Your task to perform on an android device: Is it going to rain tomorrow? Image 0: 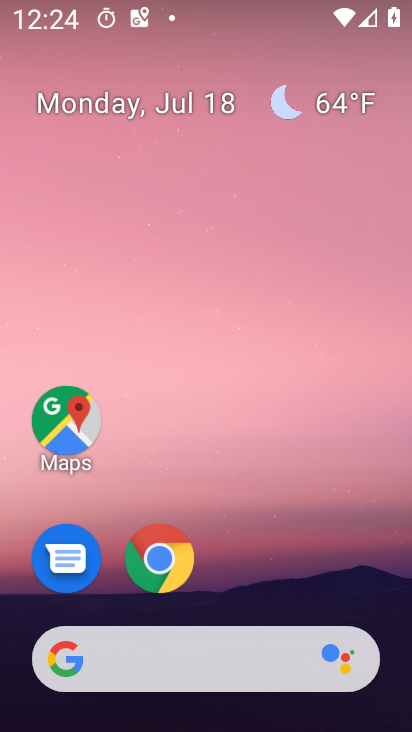
Step 0: click (207, 675)
Your task to perform on an android device: Is it going to rain tomorrow? Image 1: 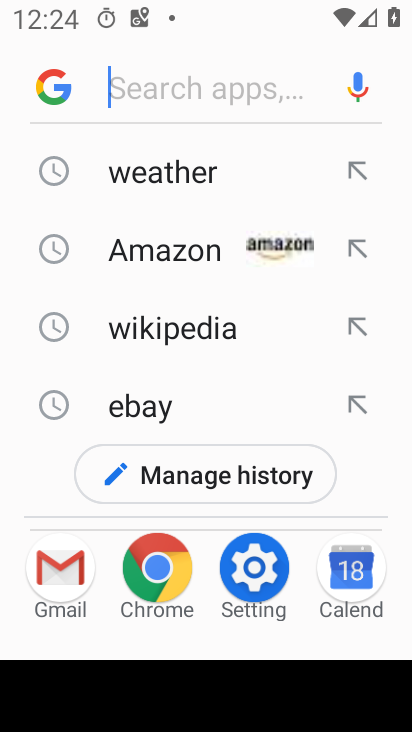
Step 1: click (192, 169)
Your task to perform on an android device: Is it going to rain tomorrow? Image 2: 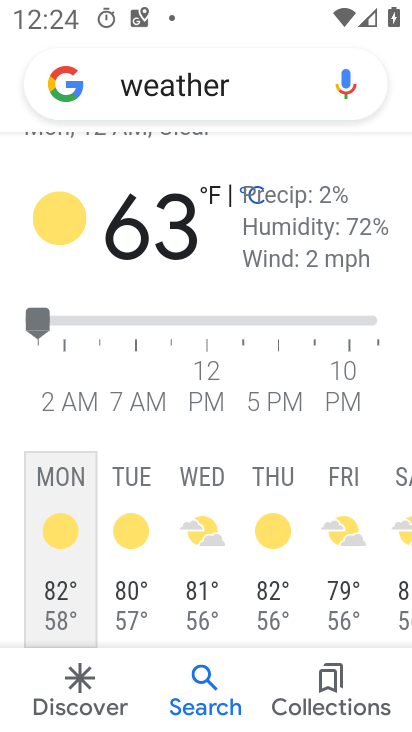
Step 2: click (145, 476)
Your task to perform on an android device: Is it going to rain tomorrow? Image 3: 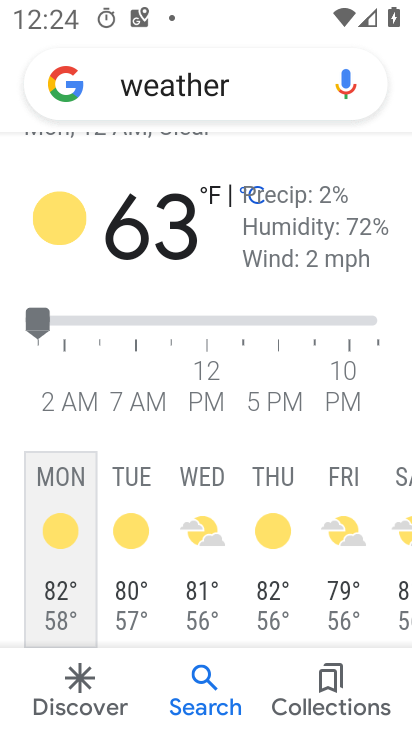
Step 3: click (150, 479)
Your task to perform on an android device: Is it going to rain tomorrow? Image 4: 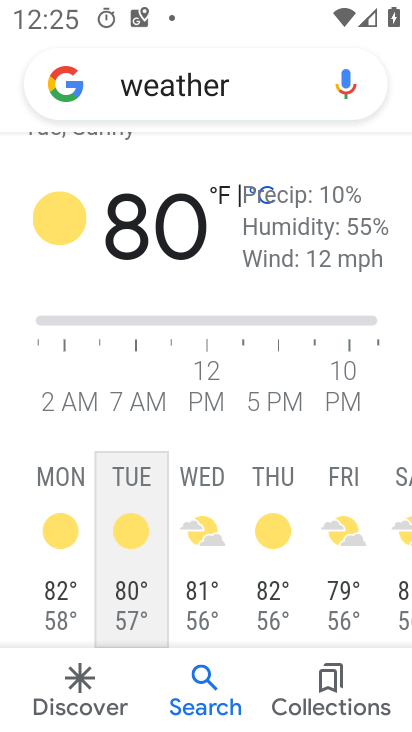
Step 4: task complete